Your task to perform on an android device: Go to accessibility settings Image 0: 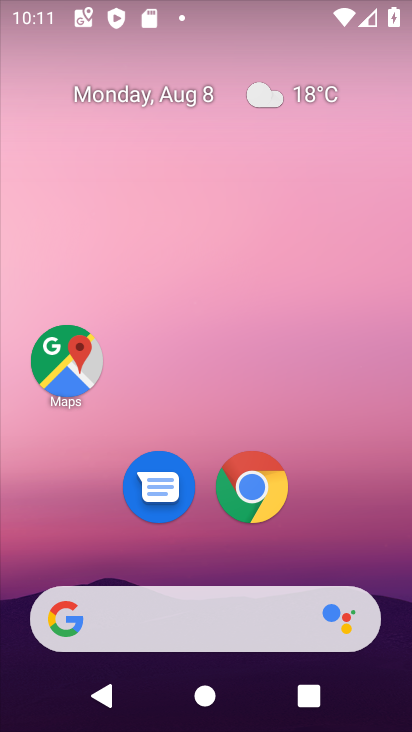
Step 0: drag from (218, 117) to (218, 35)
Your task to perform on an android device: Go to accessibility settings Image 1: 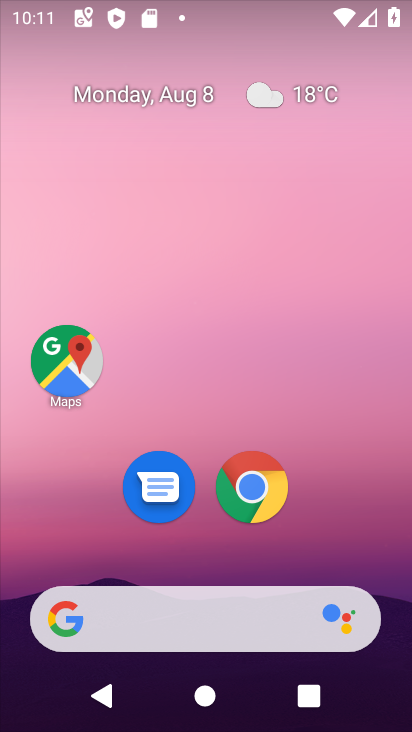
Step 1: drag from (211, 564) to (209, 17)
Your task to perform on an android device: Go to accessibility settings Image 2: 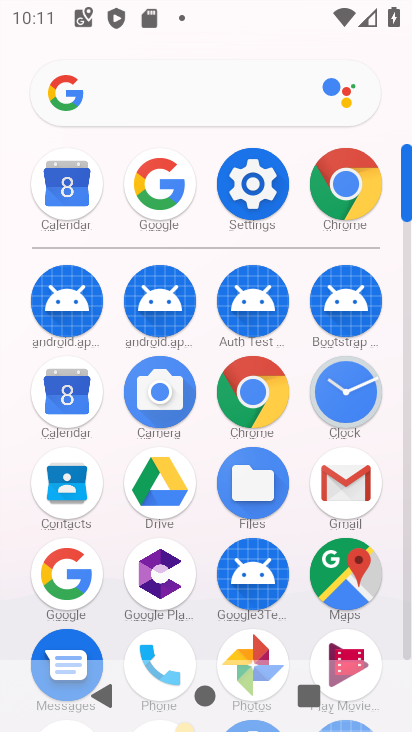
Step 2: click (246, 174)
Your task to perform on an android device: Go to accessibility settings Image 3: 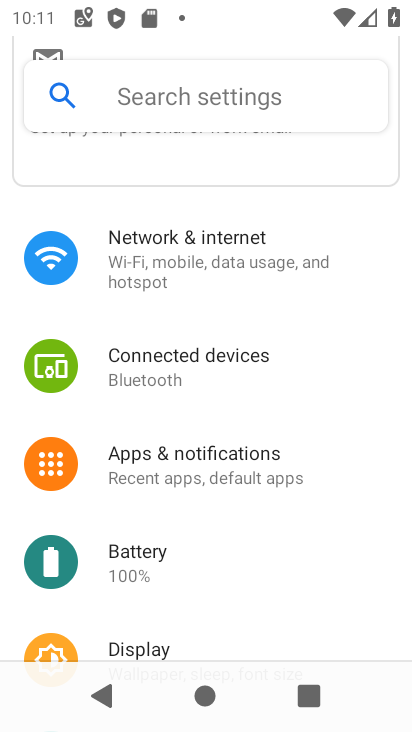
Step 3: drag from (190, 599) to (195, 240)
Your task to perform on an android device: Go to accessibility settings Image 4: 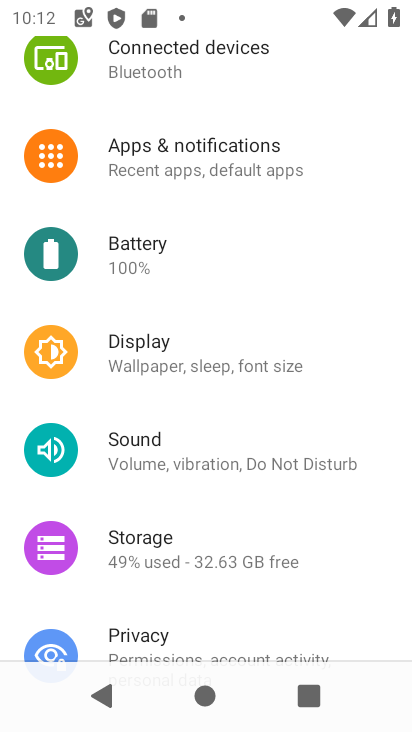
Step 4: drag from (174, 599) to (174, 223)
Your task to perform on an android device: Go to accessibility settings Image 5: 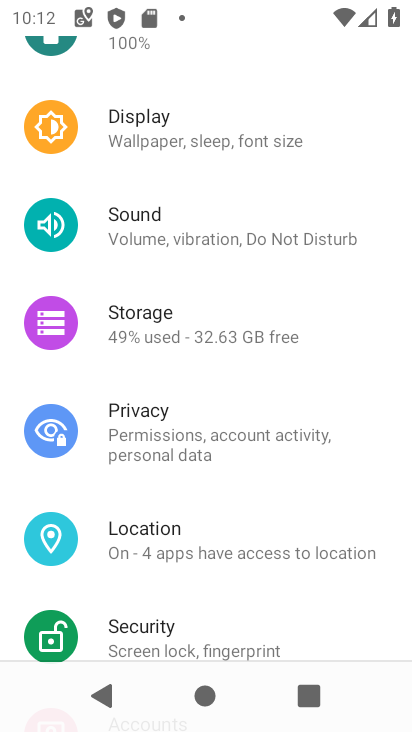
Step 5: drag from (192, 595) to (192, 213)
Your task to perform on an android device: Go to accessibility settings Image 6: 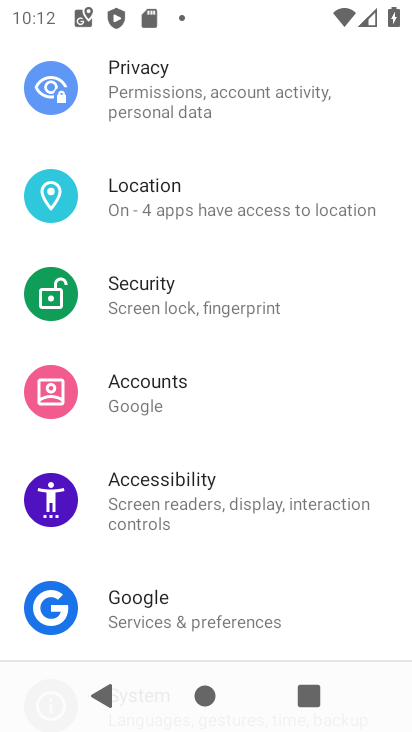
Step 6: click (173, 496)
Your task to perform on an android device: Go to accessibility settings Image 7: 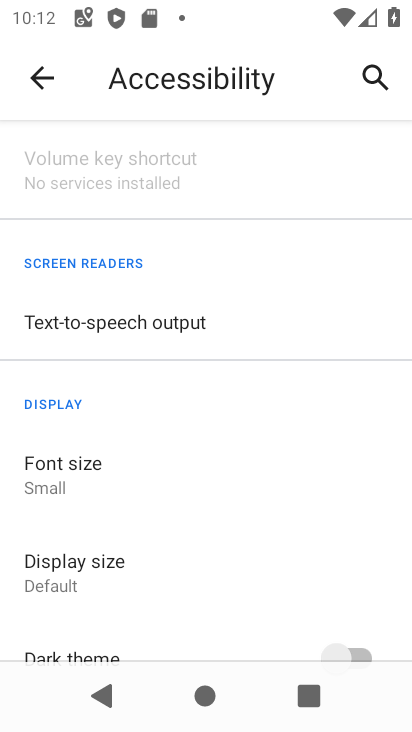
Step 7: task complete